Your task to perform on an android device: Open Wikipedia Image 0: 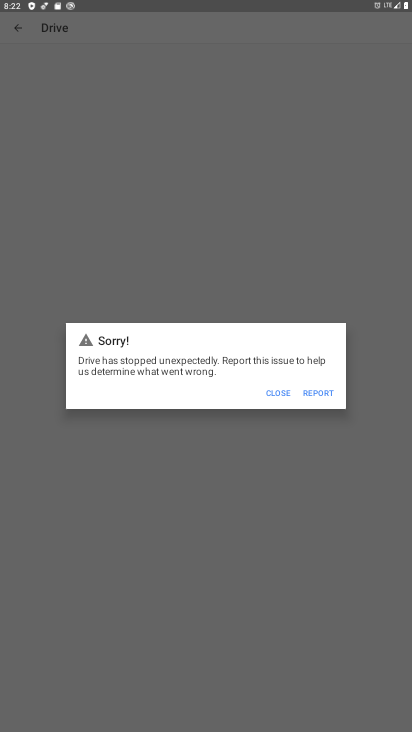
Step 0: press home button
Your task to perform on an android device: Open Wikipedia Image 1: 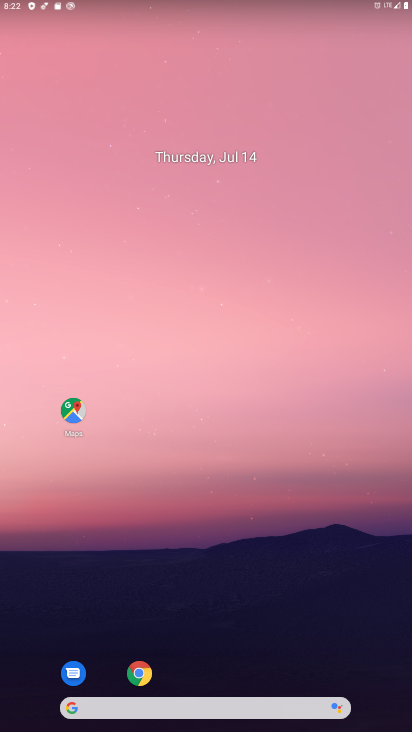
Step 1: click (141, 673)
Your task to perform on an android device: Open Wikipedia Image 2: 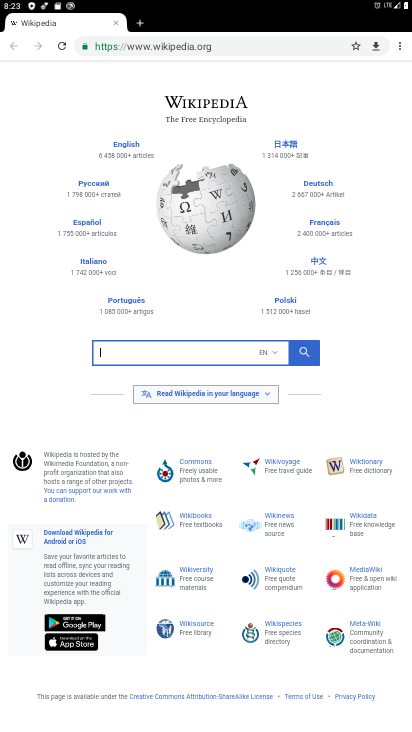
Step 2: task complete